Your task to perform on an android device: install app "Flipkart Online Shopping App" Image 0: 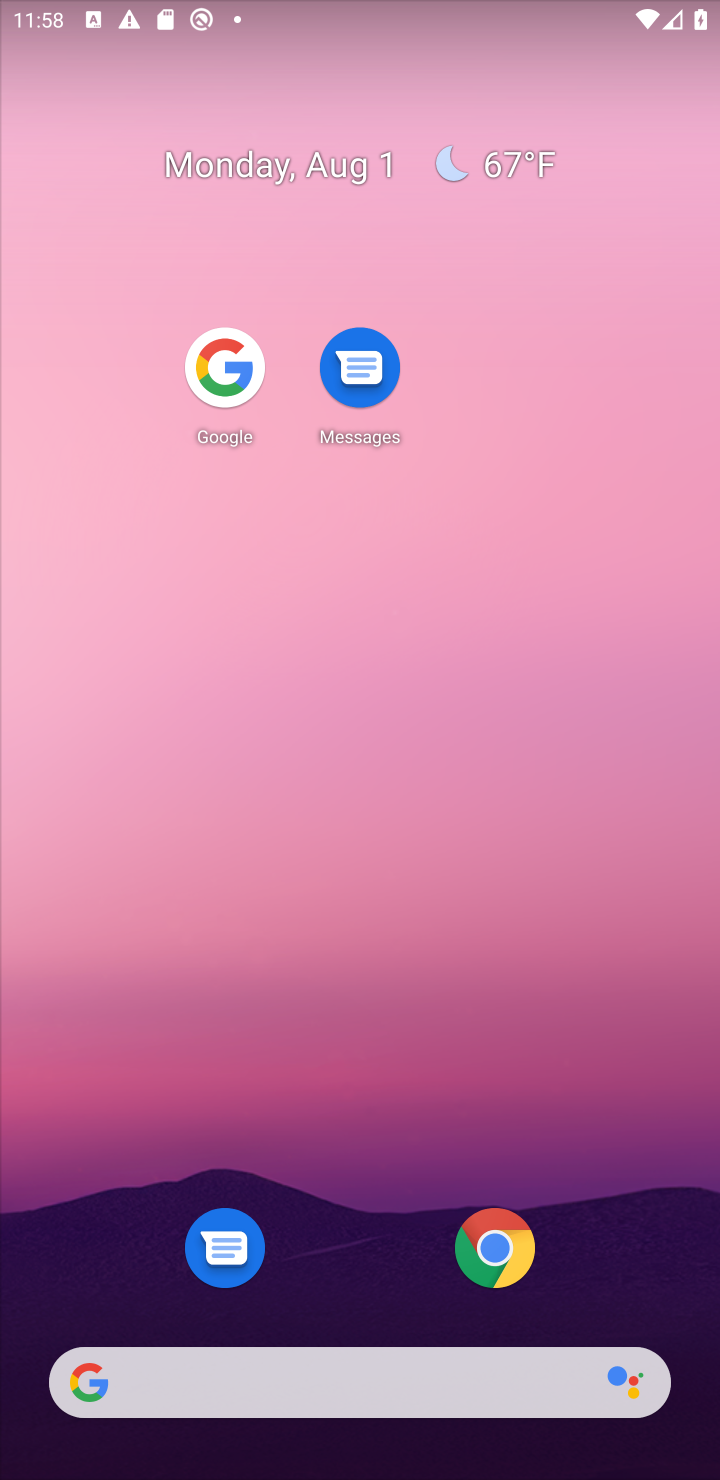
Step 0: drag from (572, 812) to (593, 231)
Your task to perform on an android device: install app "Flipkart Online Shopping App" Image 1: 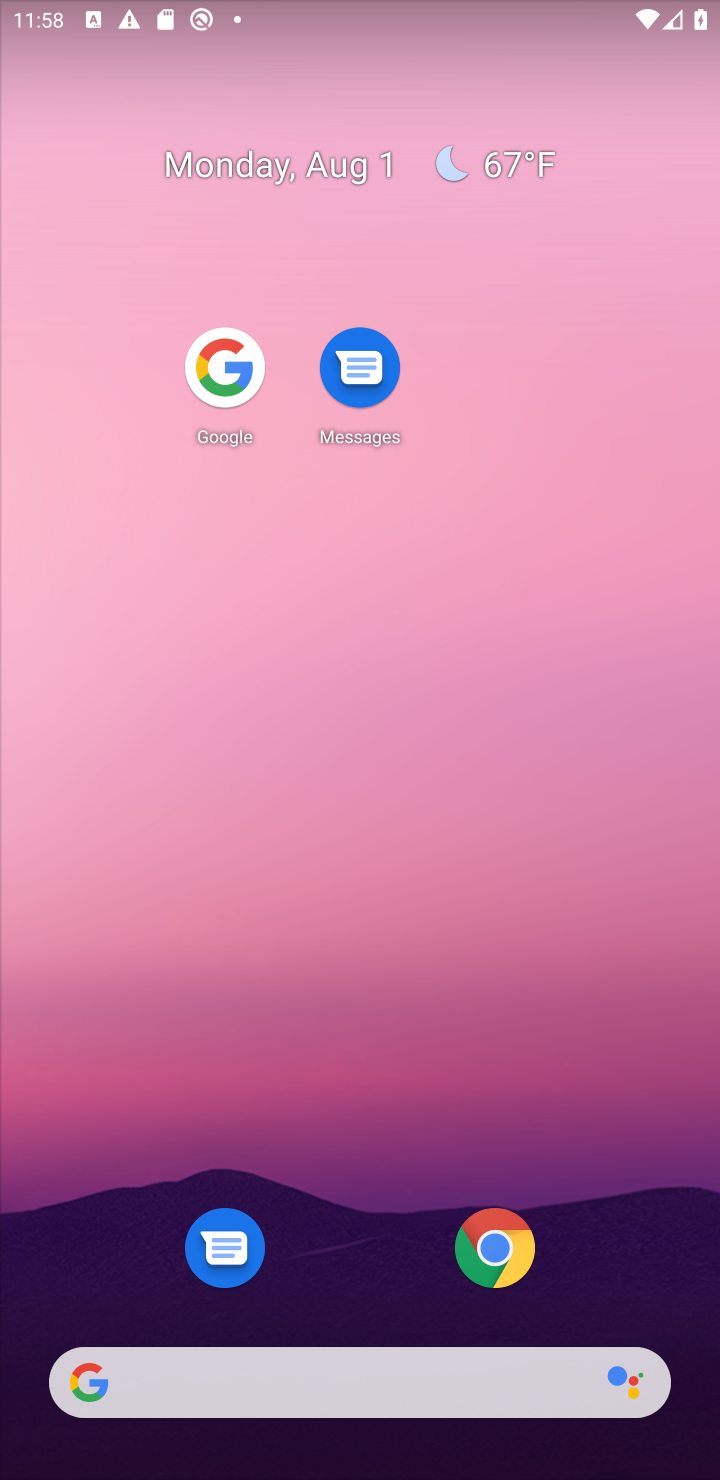
Step 1: drag from (460, 1089) to (622, 241)
Your task to perform on an android device: install app "Flipkart Online Shopping App" Image 2: 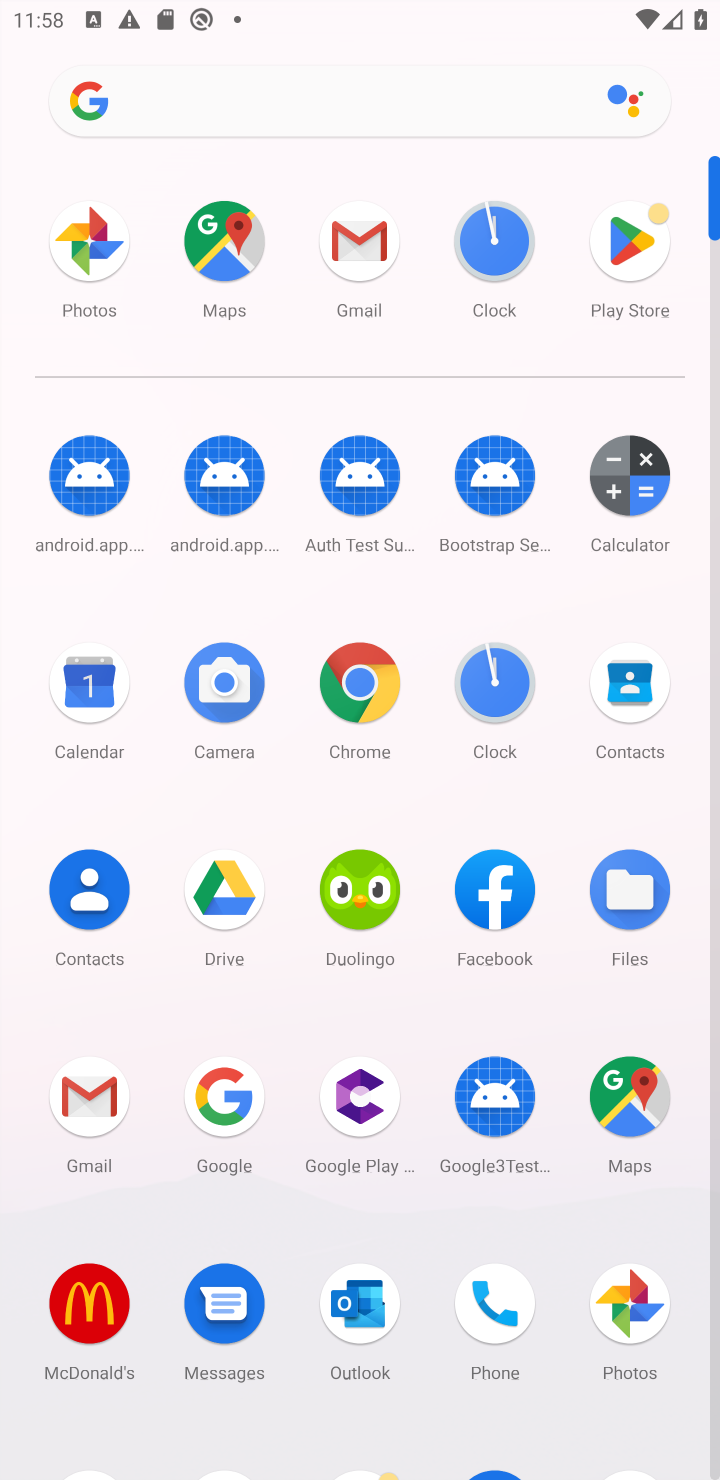
Step 2: drag from (534, 1193) to (536, 508)
Your task to perform on an android device: install app "Flipkart Online Shopping App" Image 3: 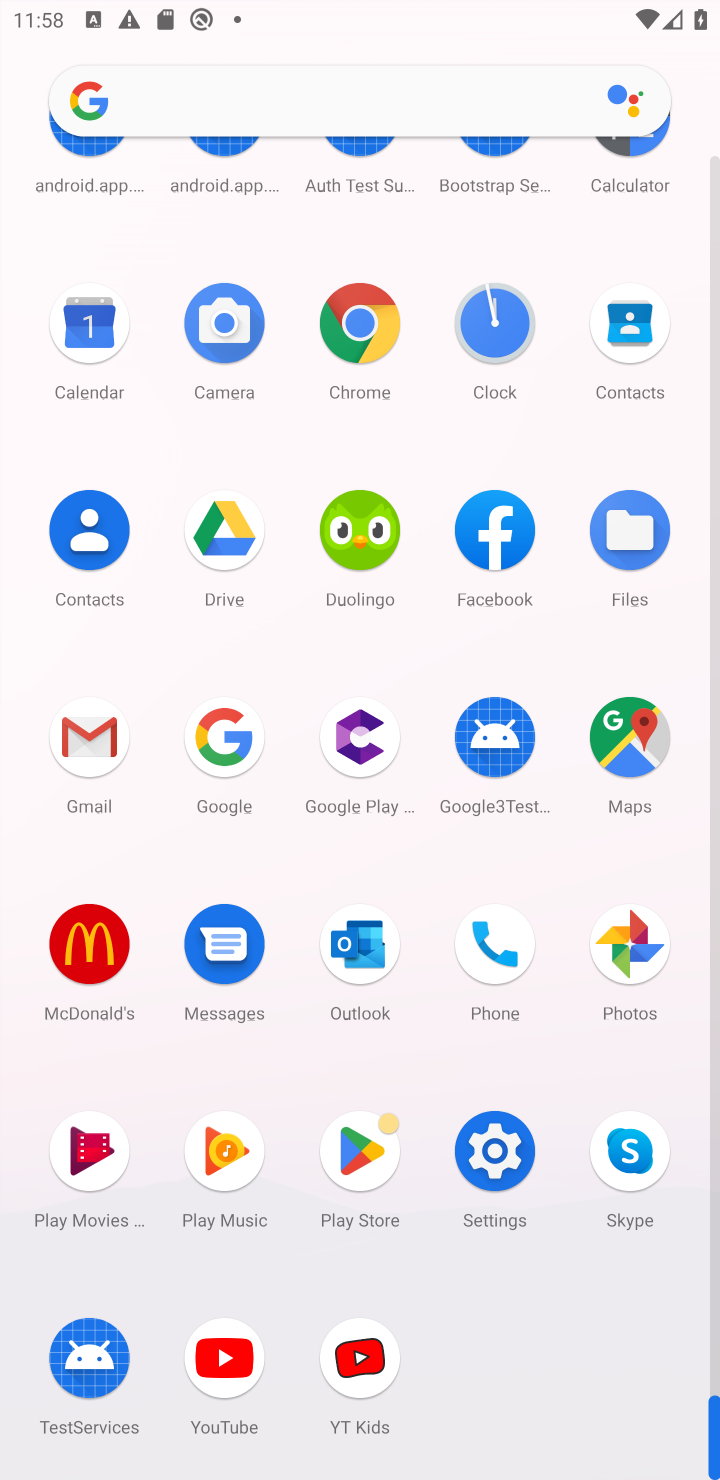
Step 3: click (361, 1153)
Your task to perform on an android device: install app "Flipkart Online Shopping App" Image 4: 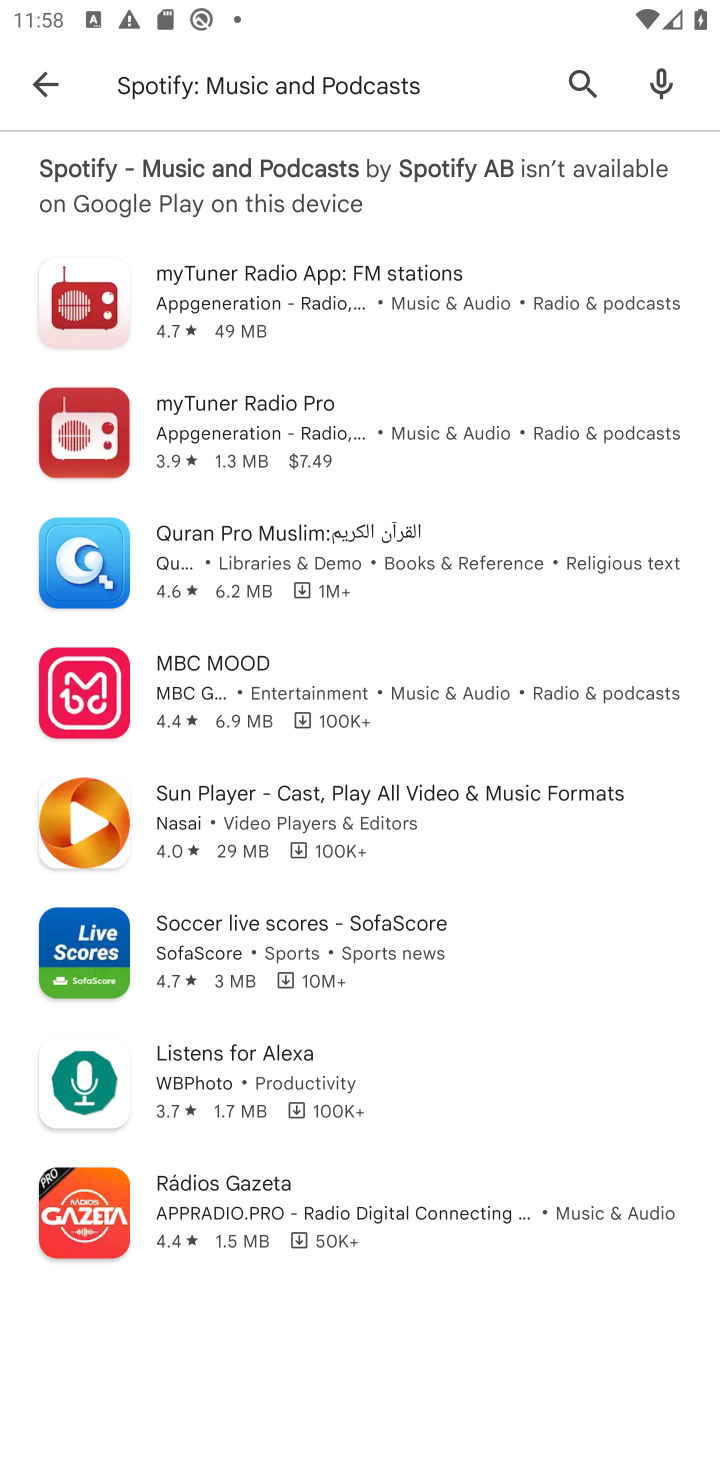
Step 4: click (365, 86)
Your task to perform on an android device: install app "Flipkart Online Shopping App" Image 5: 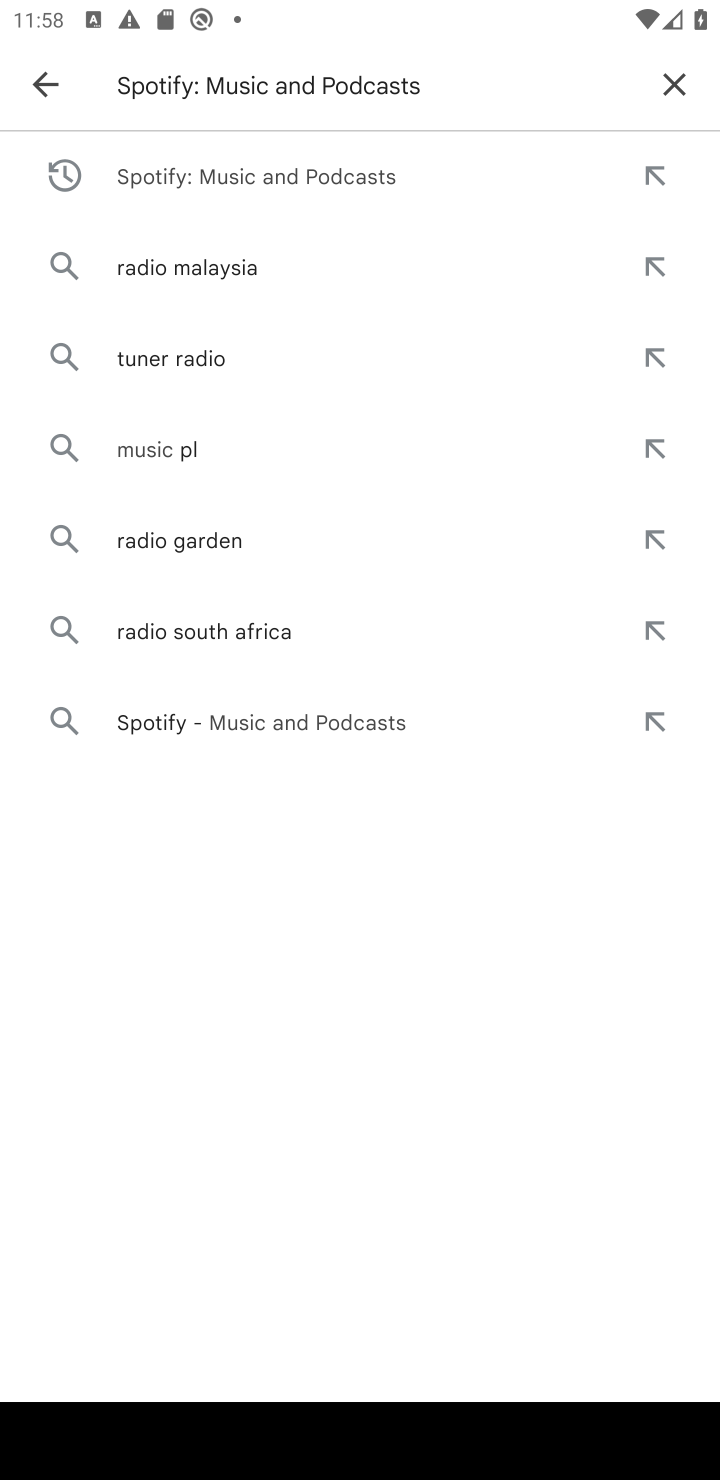
Step 5: click (674, 89)
Your task to perform on an android device: install app "Flipkart Online Shopping App" Image 6: 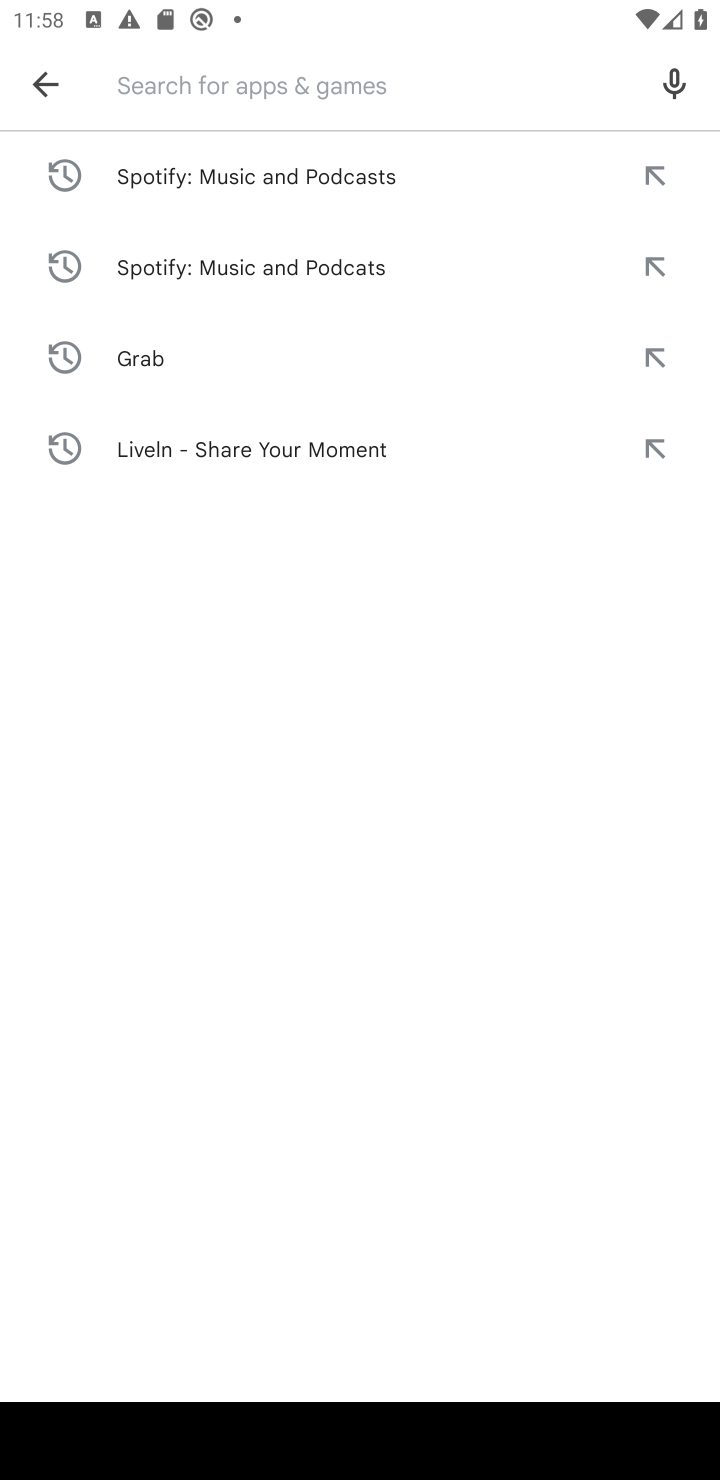
Step 6: type "Flipkart Online Shopping App"
Your task to perform on an android device: install app "Flipkart Online Shopping App" Image 7: 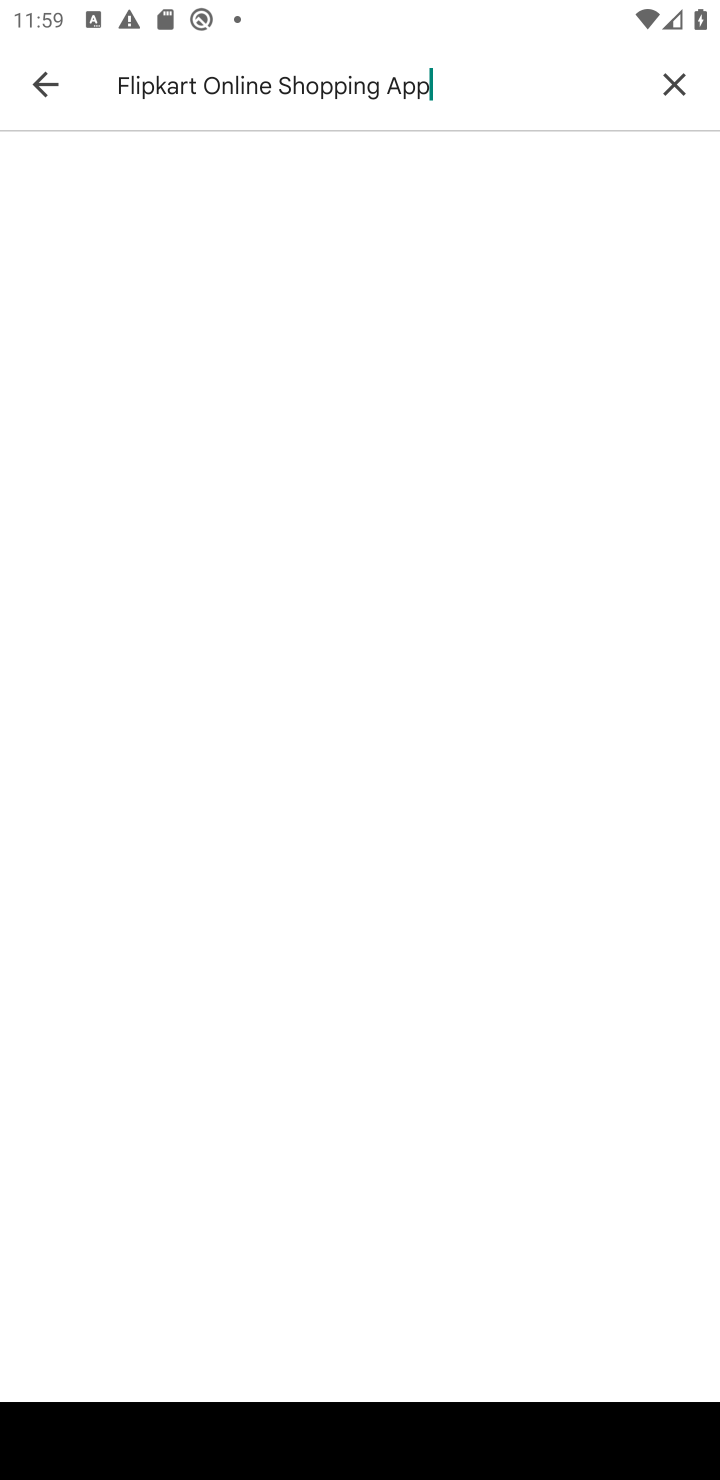
Step 7: press enter
Your task to perform on an android device: install app "Flipkart Online Shopping App" Image 8: 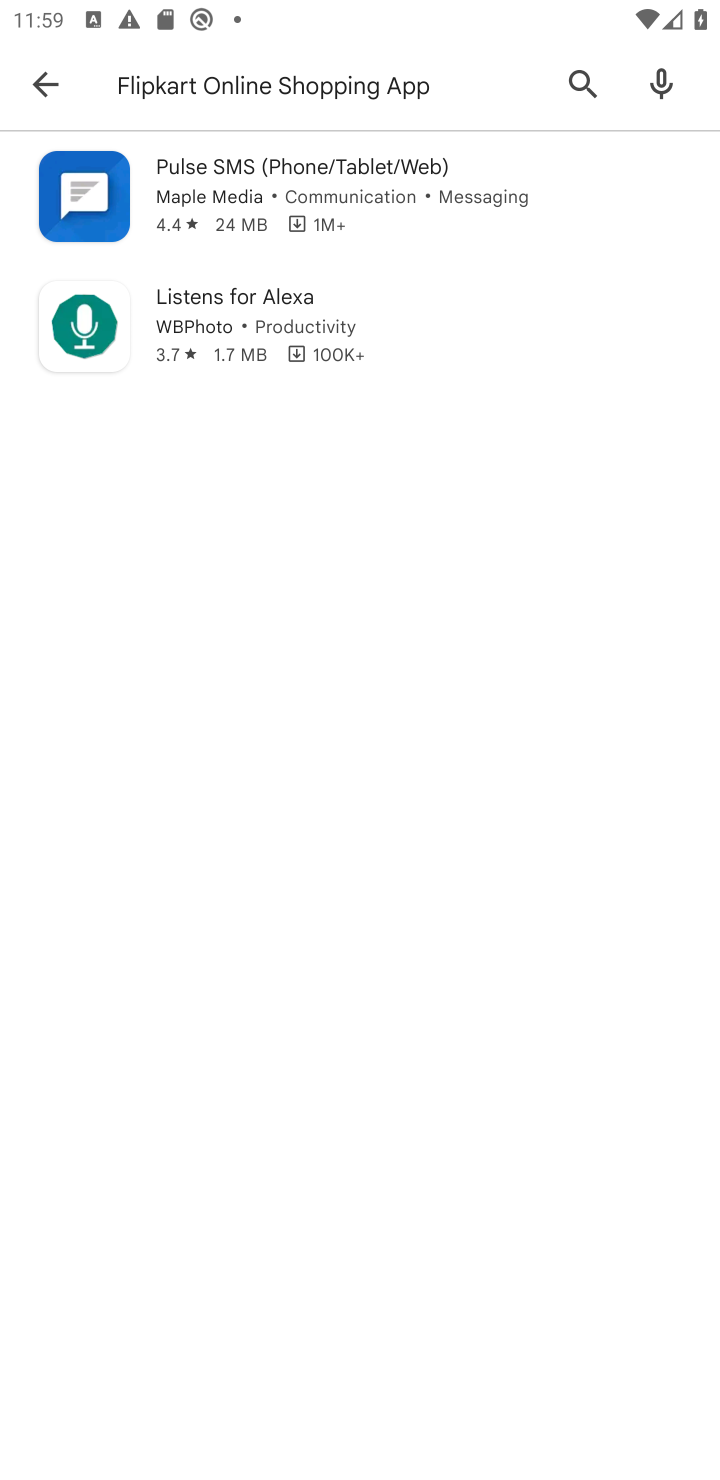
Step 8: task complete